Your task to perform on an android device: turn on location history Image 0: 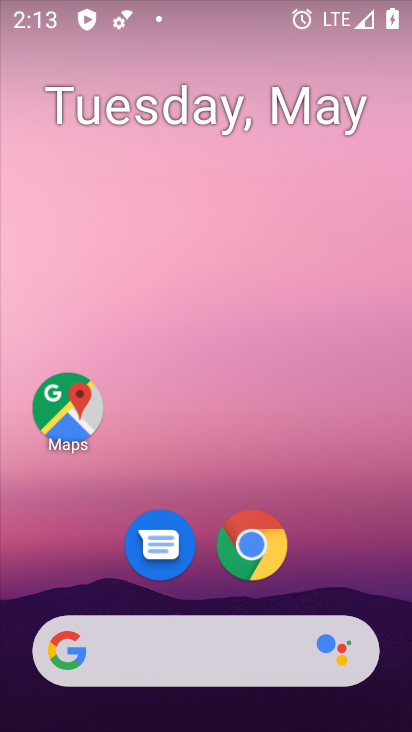
Step 0: drag from (359, 485) to (233, 26)
Your task to perform on an android device: turn on location history Image 1: 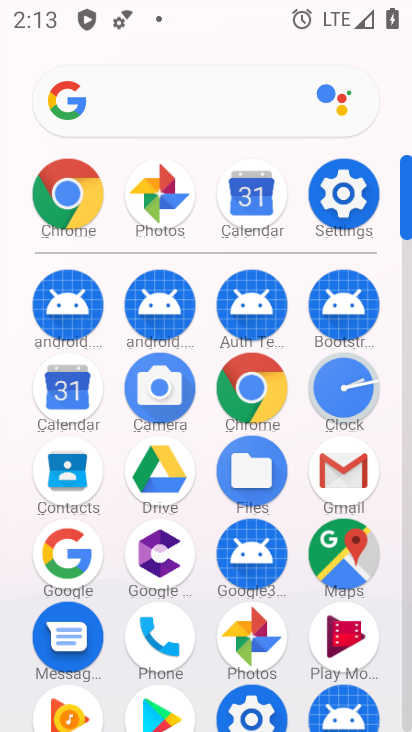
Step 1: drag from (4, 553) to (11, 119)
Your task to perform on an android device: turn on location history Image 2: 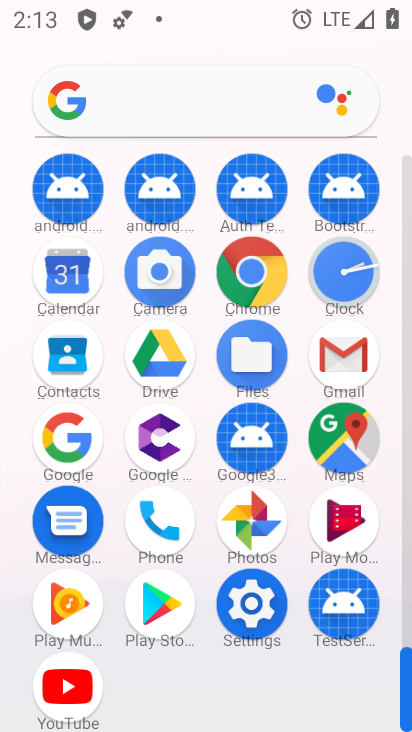
Step 2: click (250, 601)
Your task to perform on an android device: turn on location history Image 3: 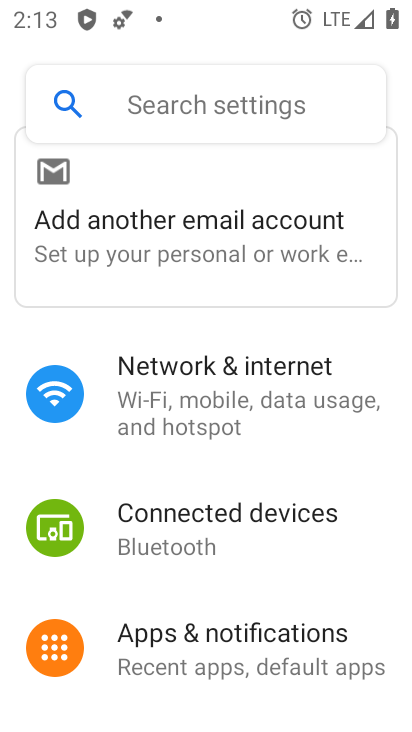
Step 3: drag from (308, 669) to (300, 346)
Your task to perform on an android device: turn on location history Image 4: 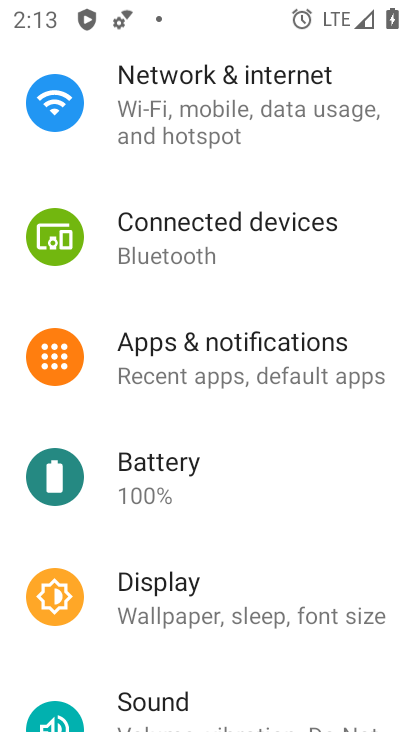
Step 4: drag from (284, 621) to (276, 214)
Your task to perform on an android device: turn on location history Image 5: 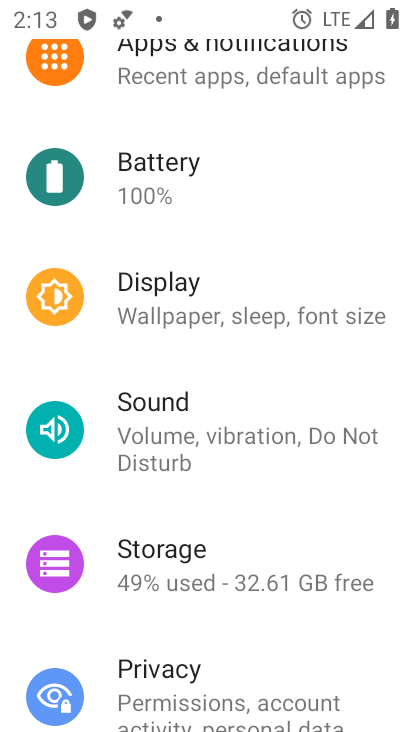
Step 5: drag from (265, 603) to (300, 131)
Your task to perform on an android device: turn on location history Image 6: 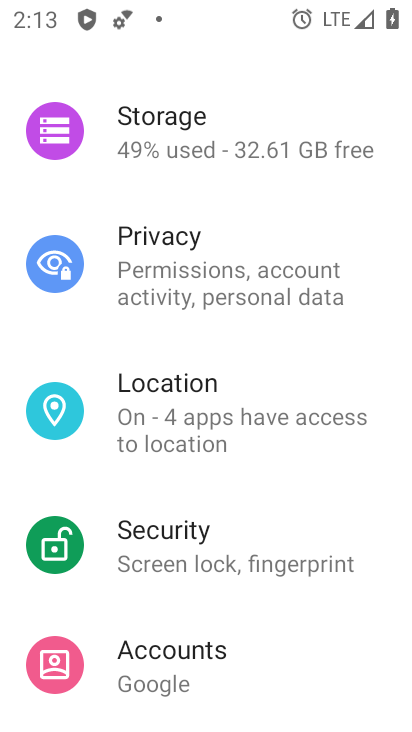
Step 6: click (199, 398)
Your task to perform on an android device: turn on location history Image 7: 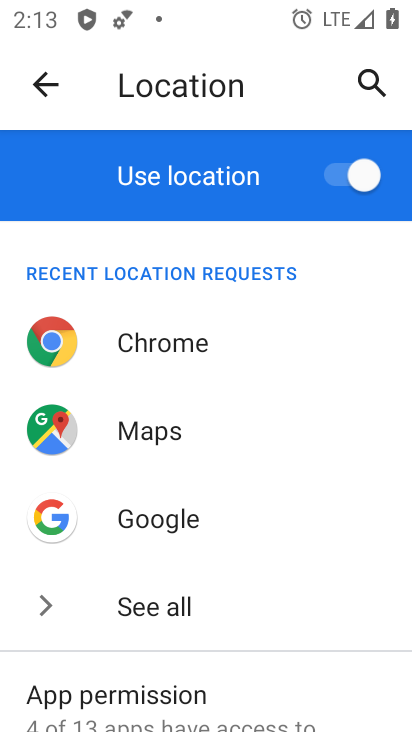
Step 7: drag from (245, 599) to (217, 195)
Your task to perform on an android device: turn on location history Image 8: 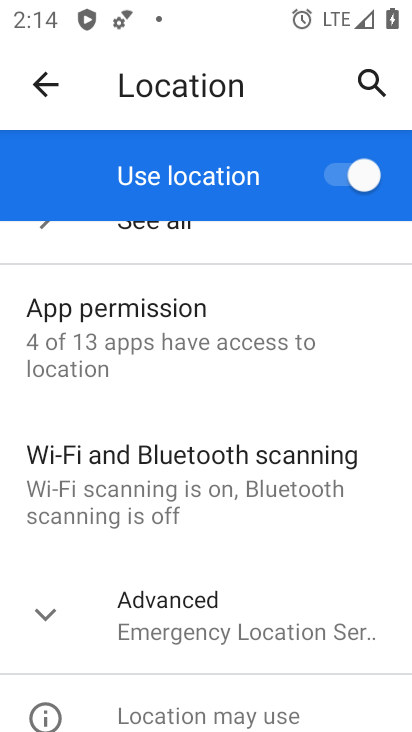
Step 8: click (81, 604)
Your task to perform on an android device: turn on location history Image 9: 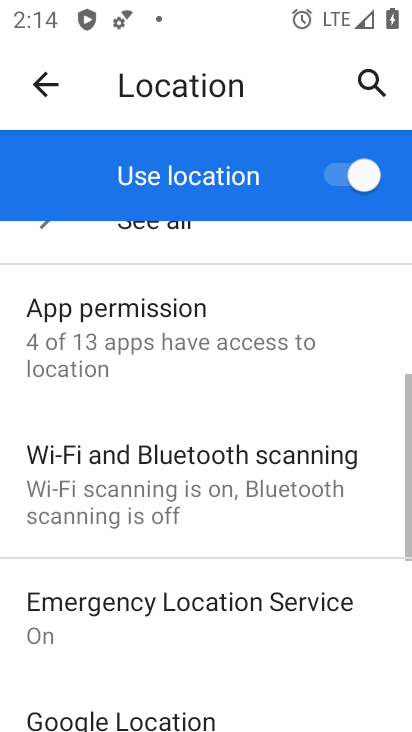
Step 9: drag from (277, 580) to (248, 198)
Your task to perform on an android device: turn on location history Image 10: 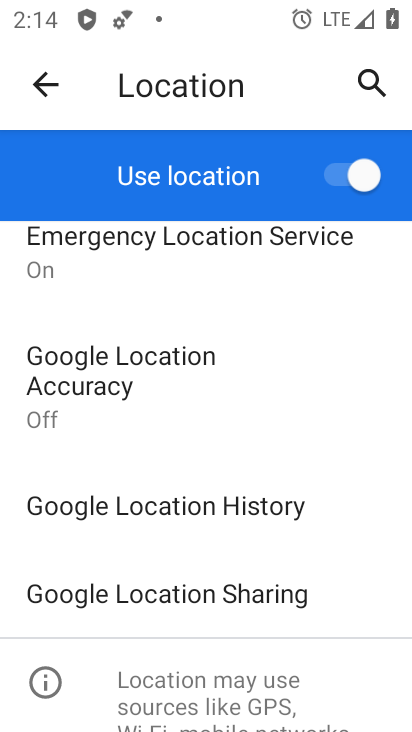
Step 10: click (241, 515)
Your task to perform on an android device: turn on location history Image 11: 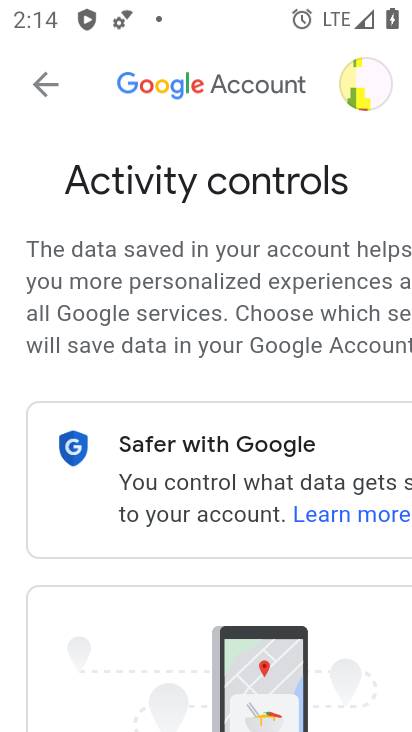
Step 11: task complete